Your task to perform on an android device: make emails show in primary in the gmail app Image 0: 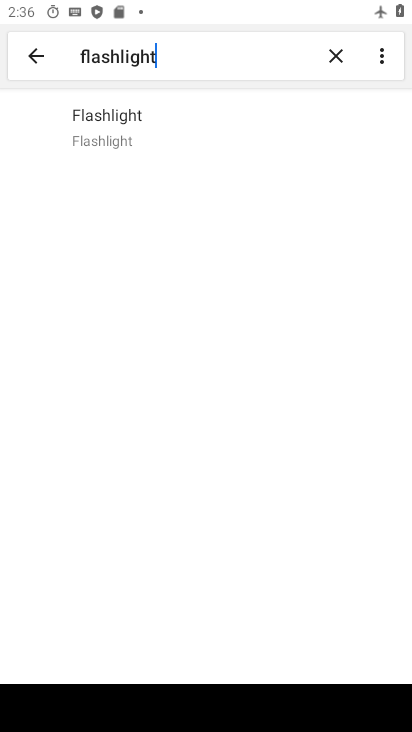
Step 0: press home button
Your task to perform on an android device: make emails show in primary in the gmail app Image 1: 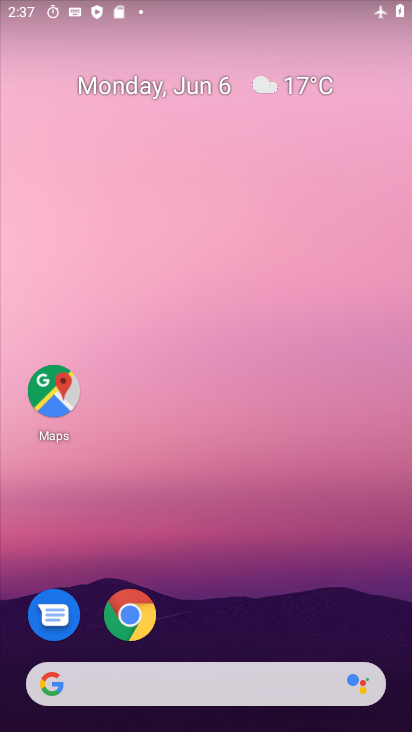
Step 1: drag from (205, 630) to (313, 185)
Your task to perform on an android device: make emails show in primary in the gmail app Image 2: 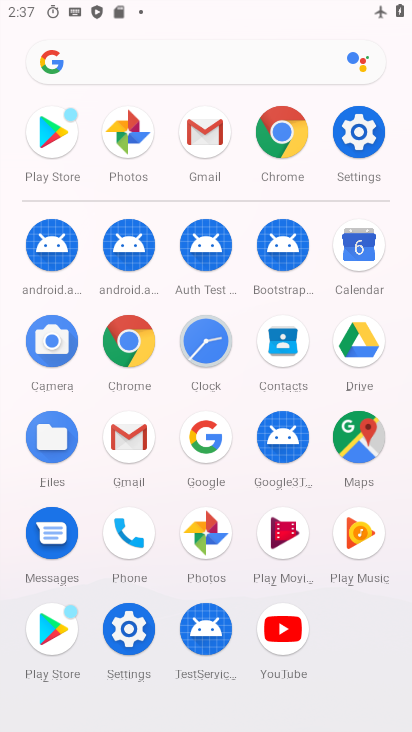
Step 2: click (133, 444)
Your task to perform on an android device: make emails show in primary in the gmail app Image 3: 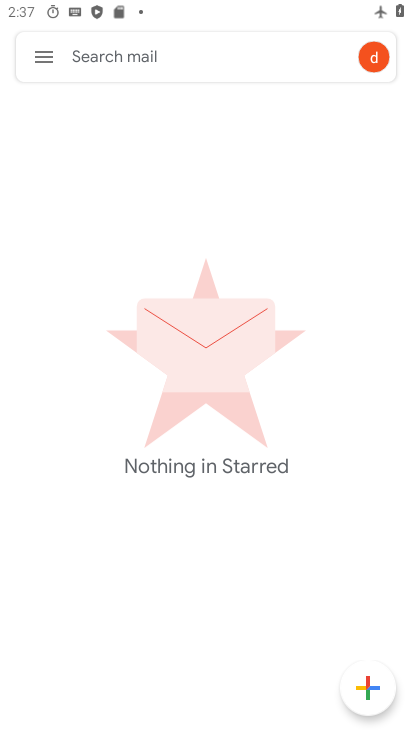
Step 3: click (31, 58)
Your task to perform on an android device: make emails show in primary in the gmail app Image 4: 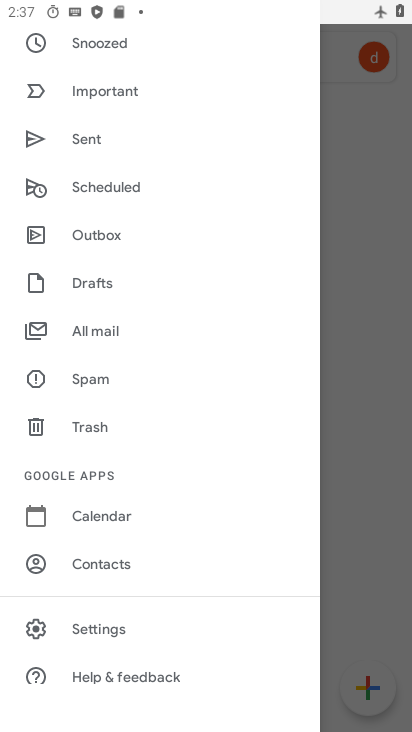
Step 4: click (110, 632)
Your task to perform on an android device: make emails show in primary in the gmail app Image 5: 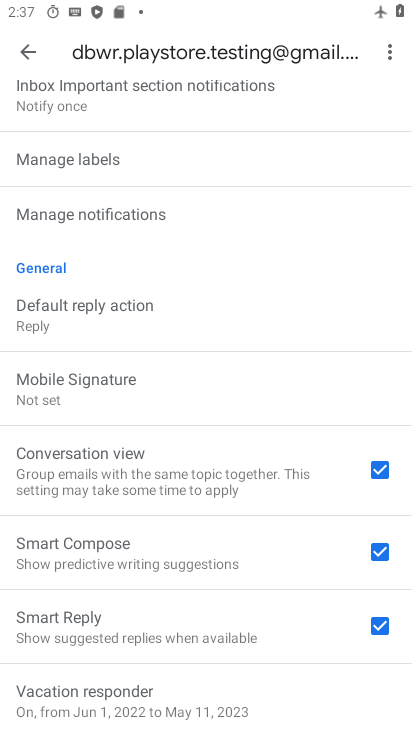
Step 5: drag from (70, 187) to (86, 588)
Your task to perform on an android device: make emails show in primary in the gmail app Image 6: 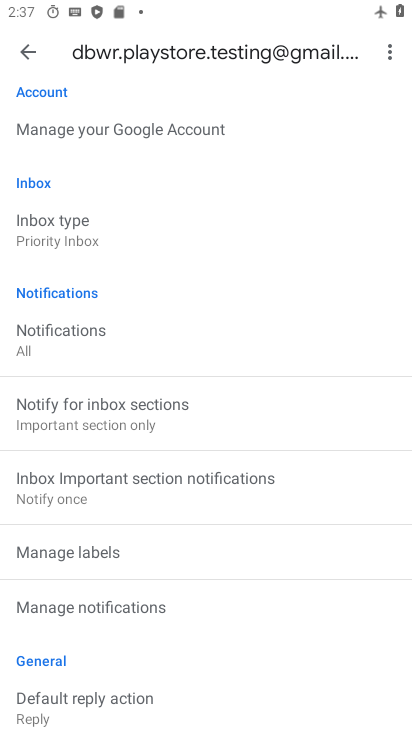
Step 6: click (71, 229)
Your task to perform on an android device: make emails show in primary in the gmail app Image 7: 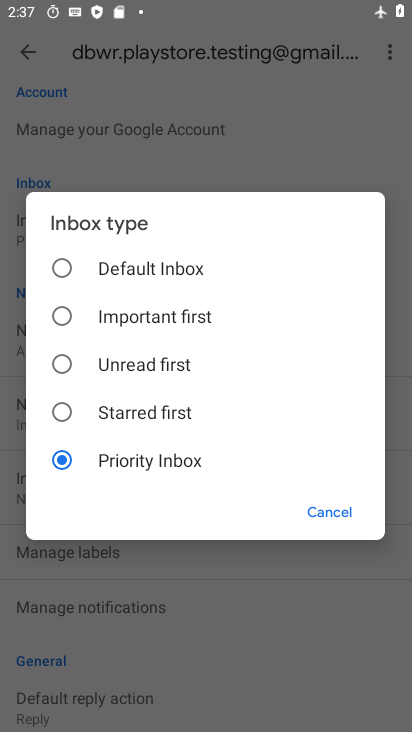
Step 7: click (127, 271)
Your task to perform on an android device: make emails show in primary in the gmail app Image 8: 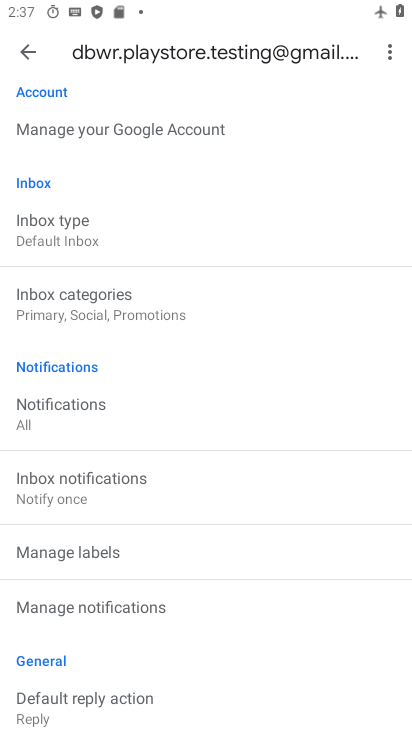
Step 8: click (138, 310)
Your task to perform on an android device: make emails show in primary in the gmail app Image 9: 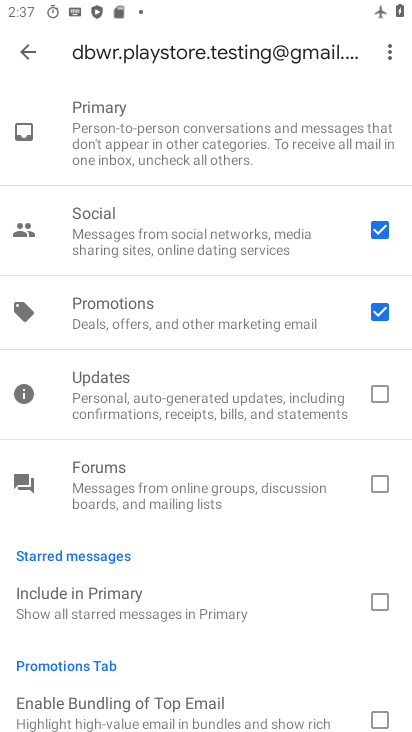
Step 9: click (373, 242)
Your task to perform on an android device: make emails show in primary in the gmail app Image 10: 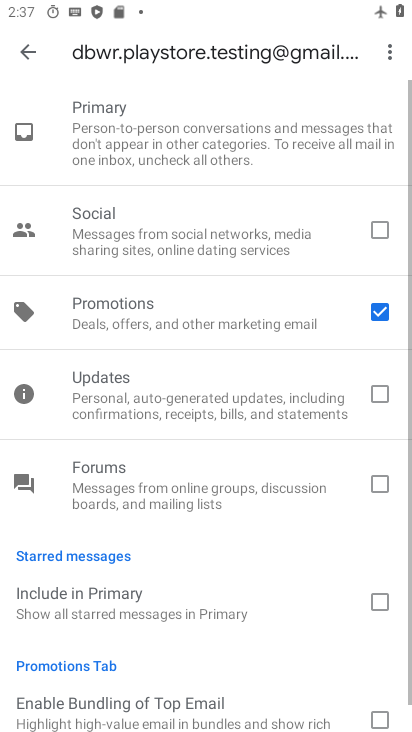
Step 10: click (373, 308)
Your task to perform on an android device: make emails show in primary in the gmail app Image 11: 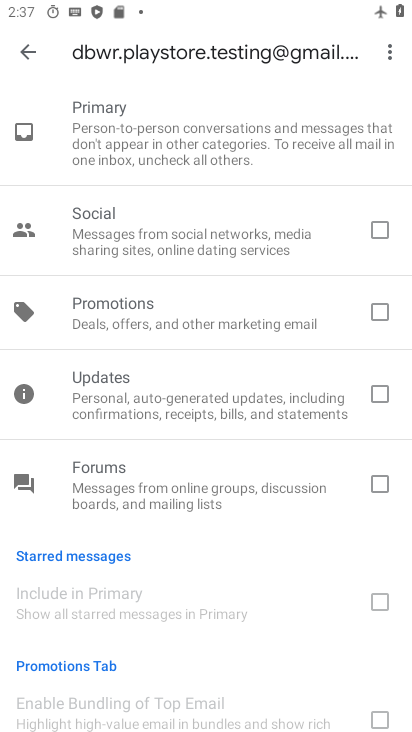
Step 11: task complete